Your task to perform on an android device: turn on improve location accuracy Image 0: 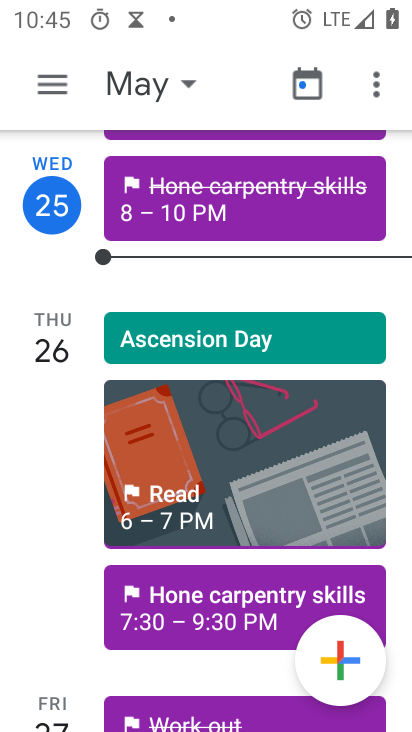
Step 0: press home button
Your task to perform on an android device: turn on improve location accuracy Image 1: 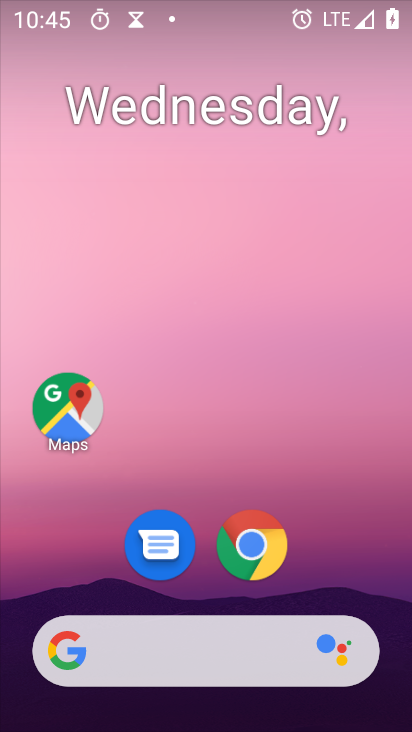
Step 1: drag from (133, 677) to (296, 97)
Your task to perform on an android device: turn on improve location accuracy Image 2: 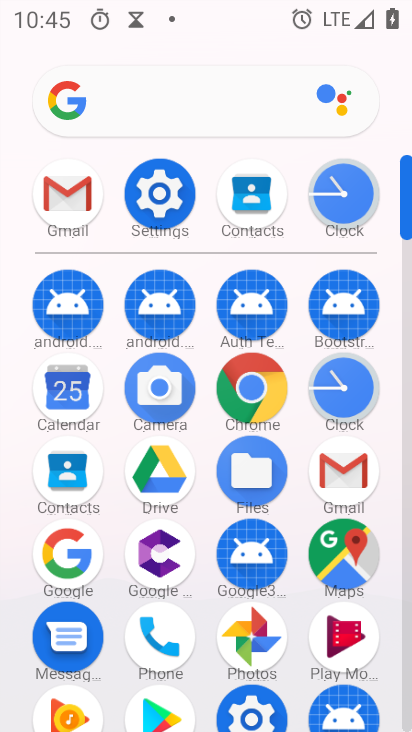
Step 2: click (169, 205)
Your task to perform on an android device: turn on improve location accuracy Image 3: 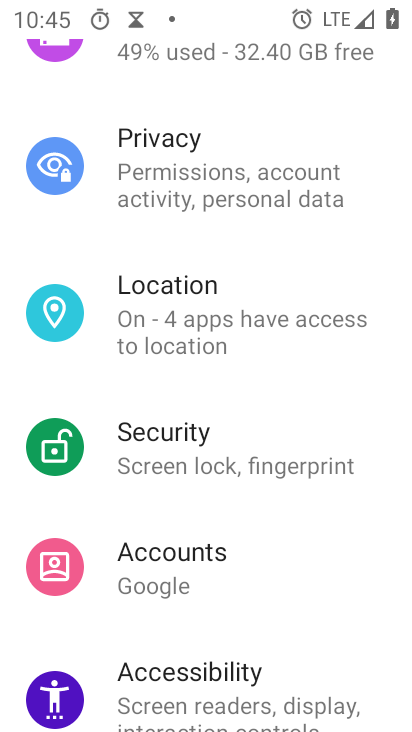
Step 3: click (206, 305)
Your task to perform on an android device: turn on improve location accuracy Image 4: 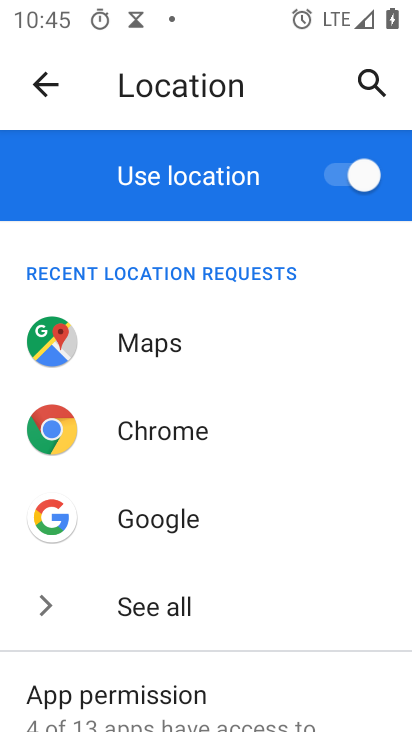
Step 4: drag from (225, 662) to (364, 243)
Your task to perform on an android device: turn on improve location accuracy Image 5: 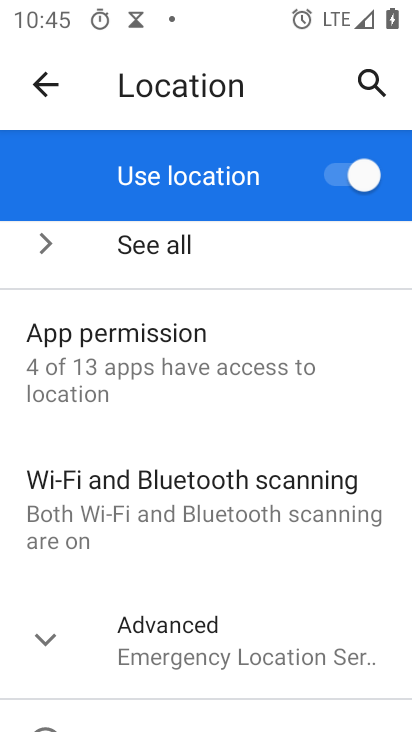
Step 5: click (183, 630)
Your task to perform on an android device: turn on improve location accuracy Image 6: 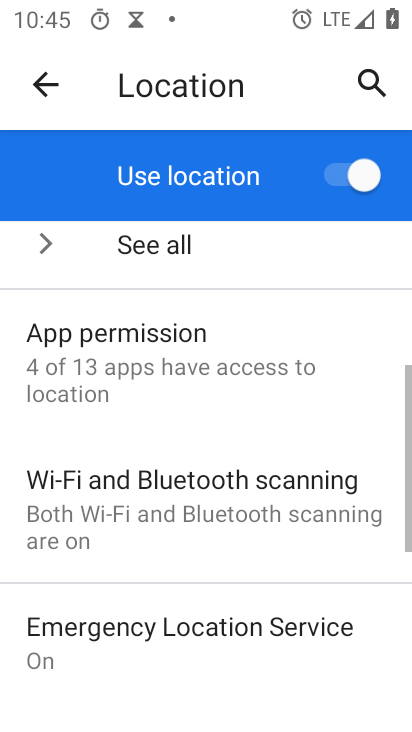
Step 6: drag from (222, 662) to (318, 332)
Your task to perform on an android device: turn on improve location accuracy Image 7: 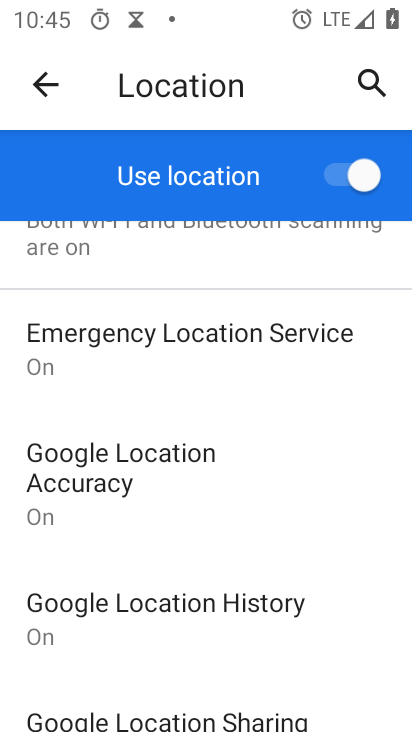
Step 7: click (113, 491)
Your task to perform on an android device: turn on improve location accuracy Image 8: 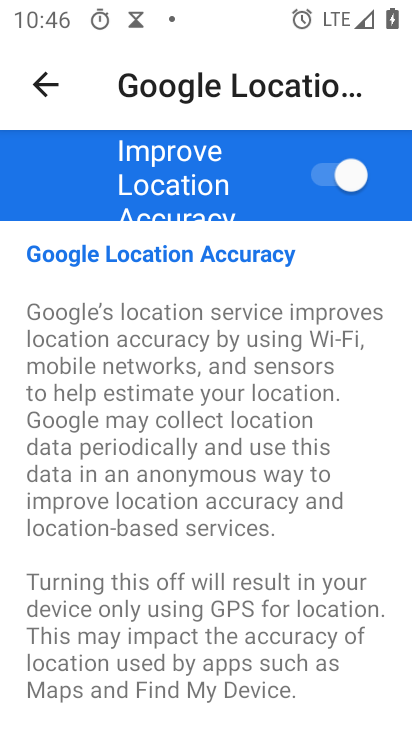
Step 8: task complete